Your task to perform on an android device: Open the web browser Image 0: 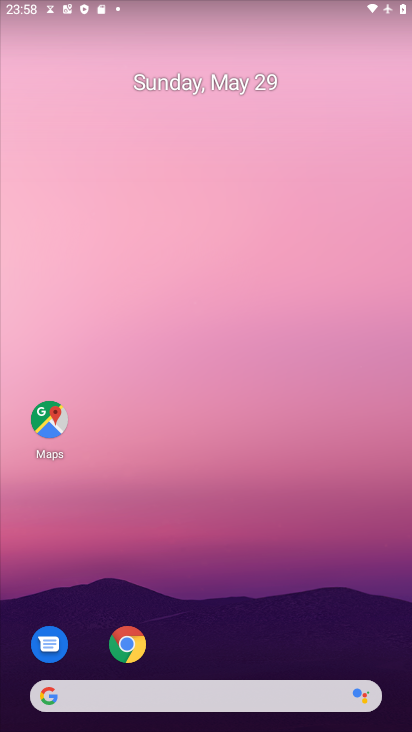
Step 0: click (133, 635)
Your task to perform on an android device: Open the web browser Image 1: 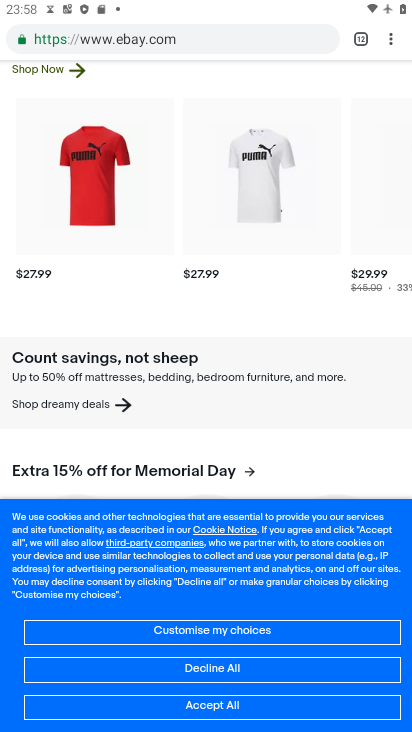
Step 1: task complete